Your task to perform on an android device: Go to ESPN.com Image 0: 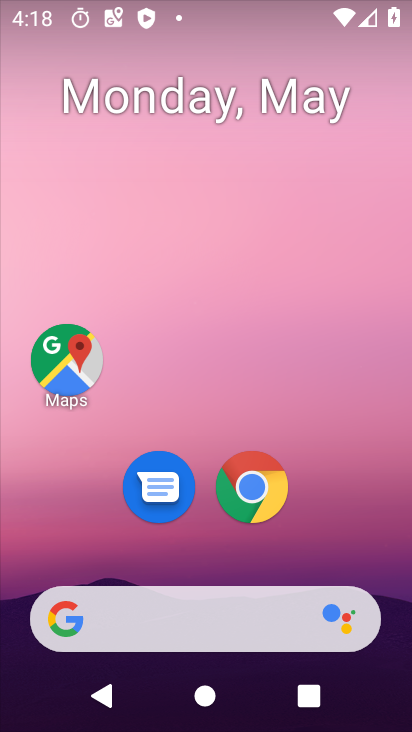
Step 0: click (258, 495)
Your task to perform on an android device: Go to ESPN.com Image 1: 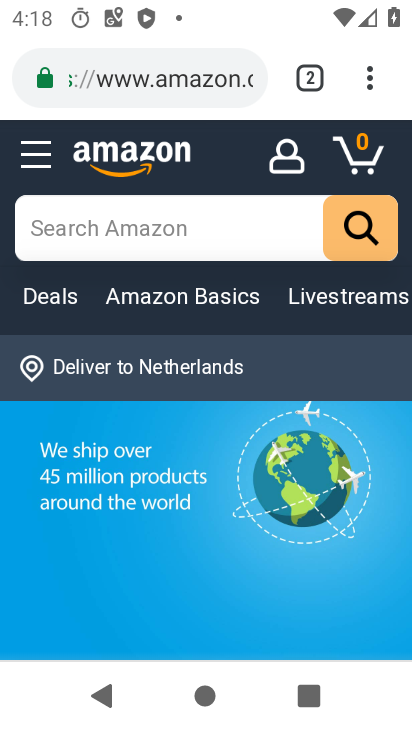
Step 1: click (111, 84)
Your task to perform on an android device: Go to ESPN.com Image 2: 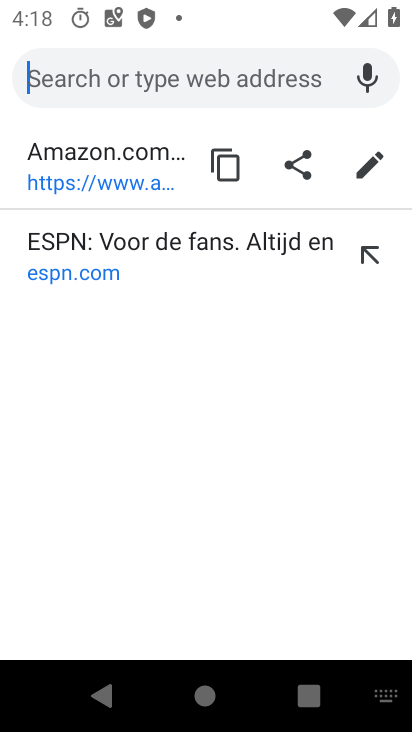
Step 2: click (64, 254)
Your task to perform on an android device: Go to ESPN.com Image 3: 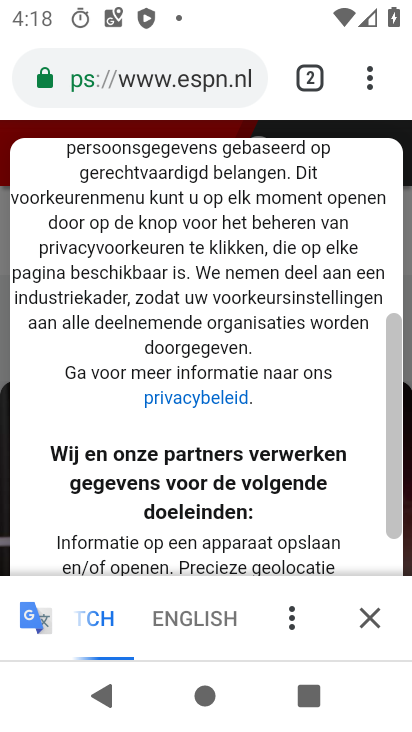
Step 3: task complete